Your task to perform on an android device: turn vacation reply on in the gmail app Image 0: 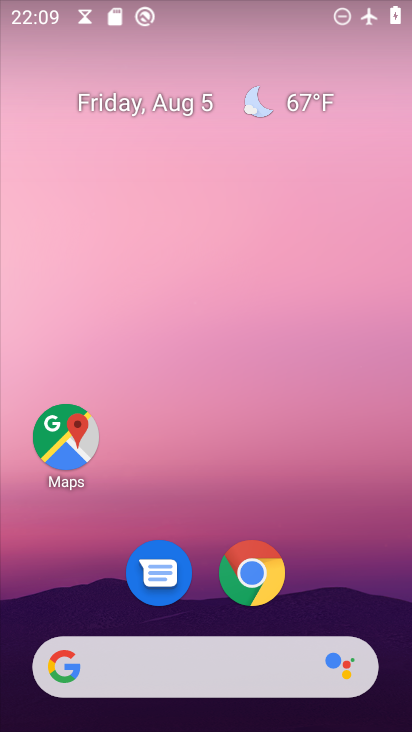
Step 0: drag from (137, 679) to (249, 122)
Your task to perform on an android device: turn vacation reply on in the gmail app Image 1: 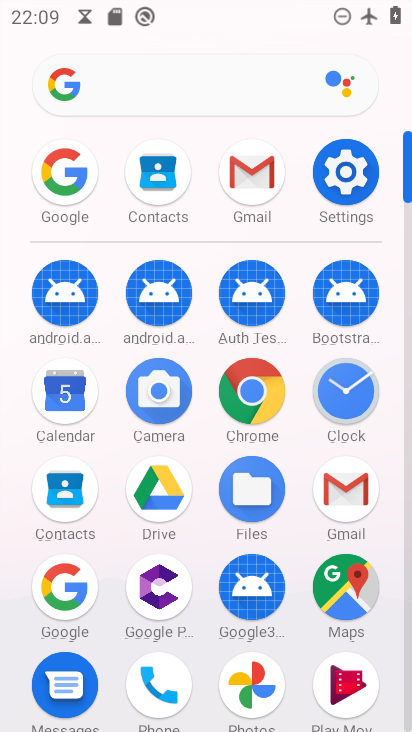
Step 1: click (255, 170)
Your task to perform on an android device: turn vacation reply on in the gmail app Image 2: 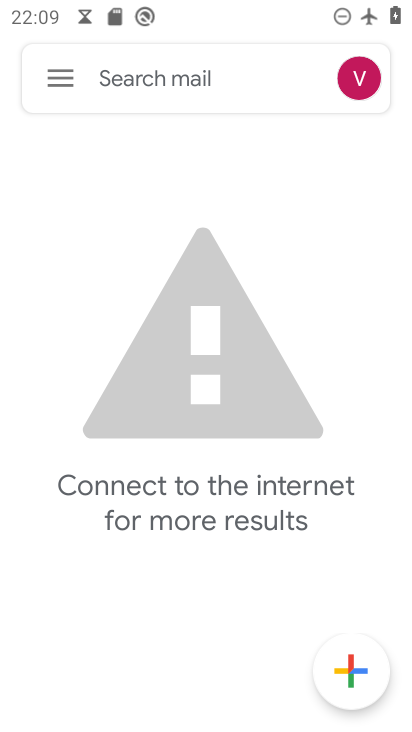
Step 2: click (52, 81)
Your task to perform on an android device: turn vacation reply on in the gmail app Image 3: 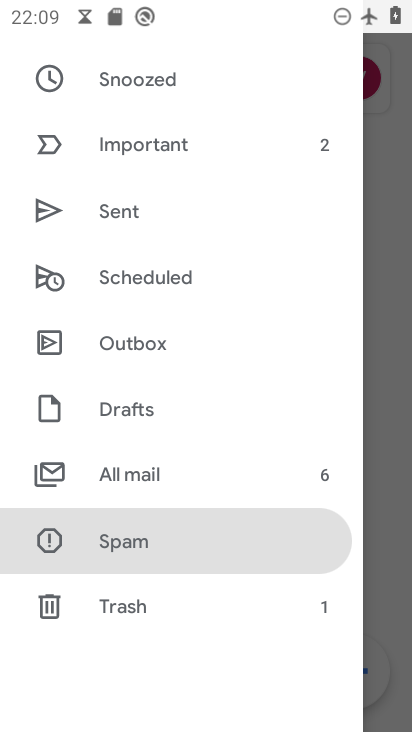
Step 3: drag from (183, 597) to (230, 348)
Your task to perform on an android device: turn vacation reply on in the gmail app Image 4: 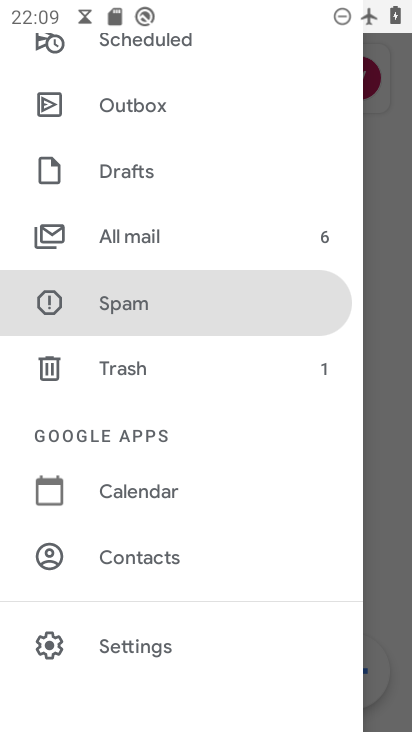
Step 4: click (148, 643)
Your task to perform on an android device: turn vacation reply on in the gmail app Image 5: 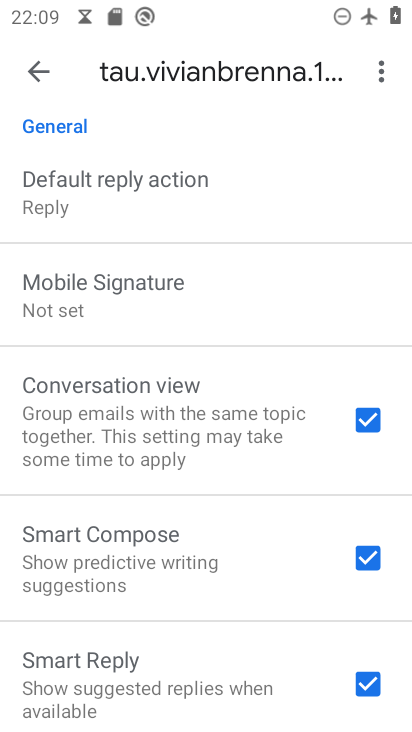
Step 5: drag from (175, 537) to (248, 323)
Your task to perform on an android device: turn vacation reply on in the gmail app Image 6: 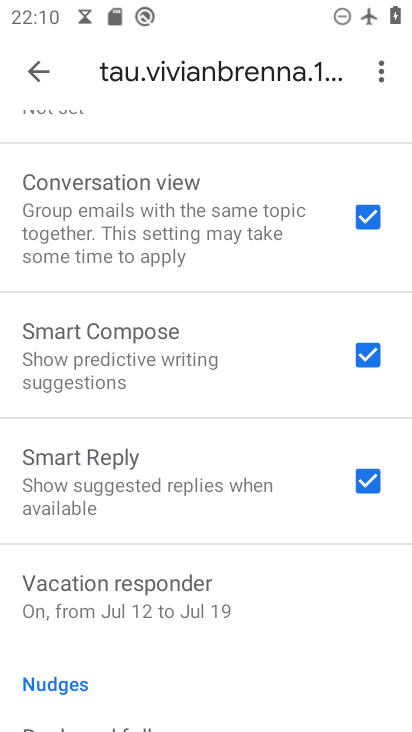
Step 6: click (196, 594)
Your task to perform on an android device: turn vacation reply on in the gmail app Image 7: 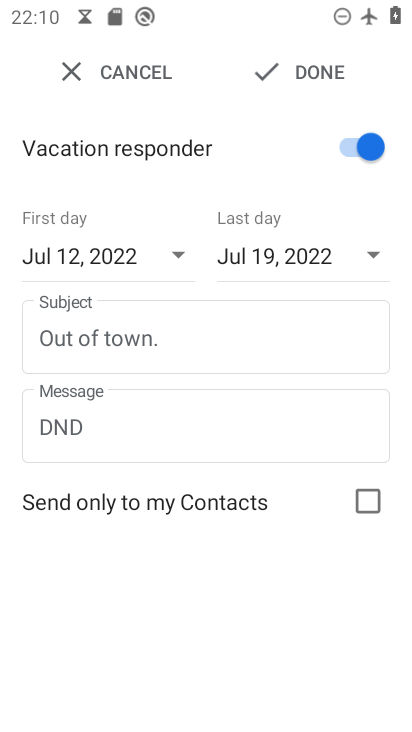
Step 7: task complete